Your task to perform on an android device: move an email to a new category in the gmail app Image 0: 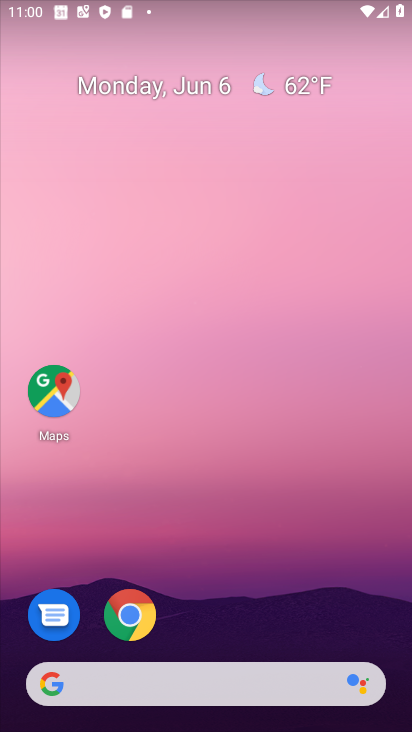
Step 0: drag from (170, 684) to (152, 10)
Your task to perform on an android device: move an email to a new category in the gmail app Image 1: 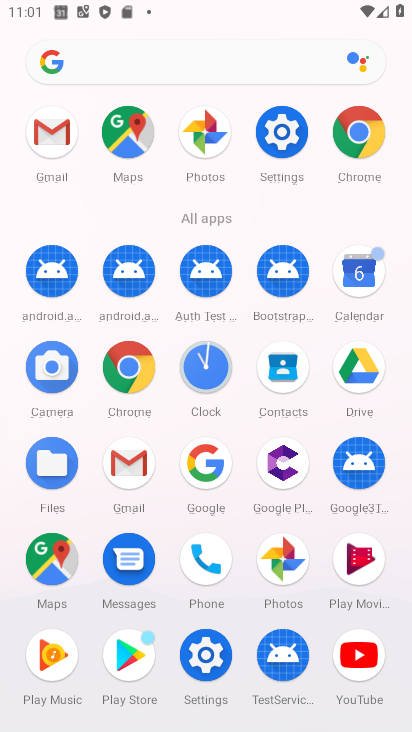
Step 1: click (43, 138)
Your task to perform on an android device: move an email to a new category in the gmail app Image 2: 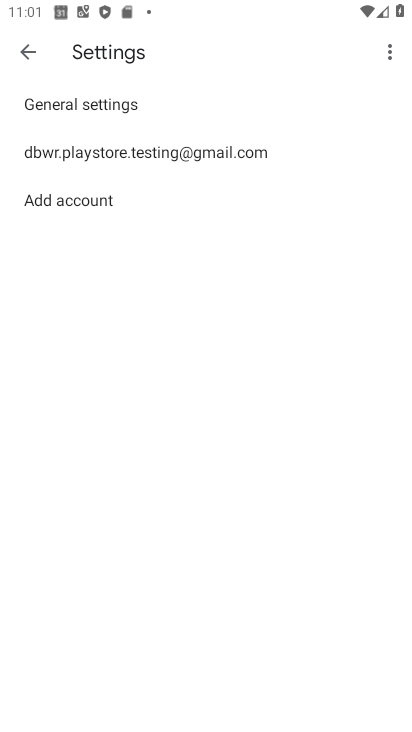
Step 2: click (23, 53)
Your task to perform on an android device: move an email to a new category in the gmail app Image 3: 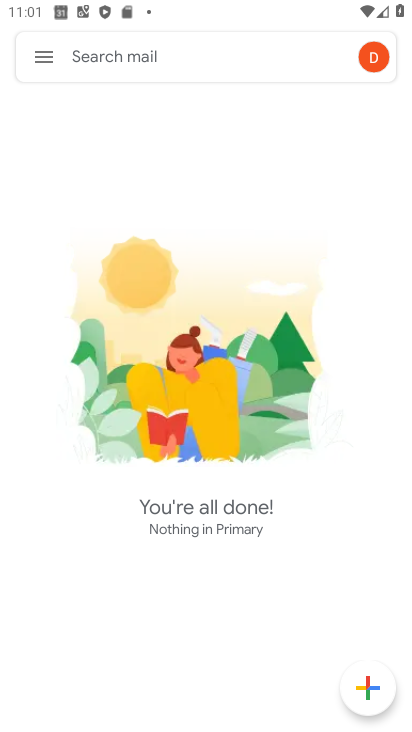
Step 3: click (23, 53)
Your task to perform on an android device: move an email to a new category in the gmail app Image 4: 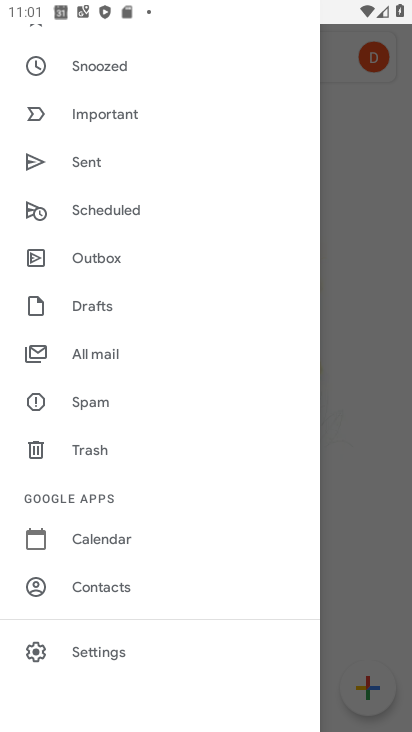
Step 4: click (111, 350)
Your task to perform on an android device: move an email to a new category in the gmail app Image 5: 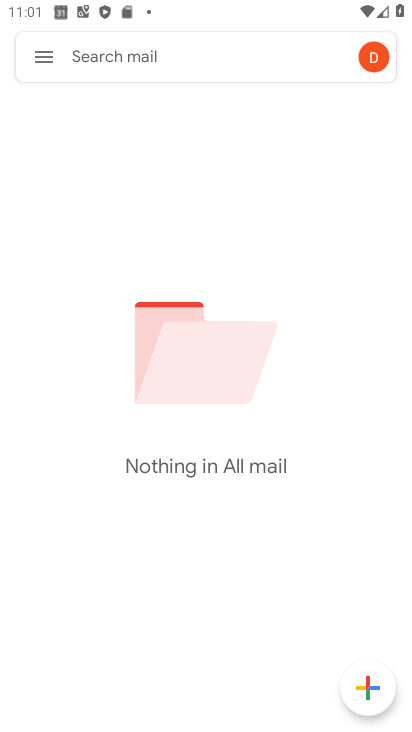
Step 5: task complete